Your task to perform on an android device: Search for a coffee table on IKEA Image 0: 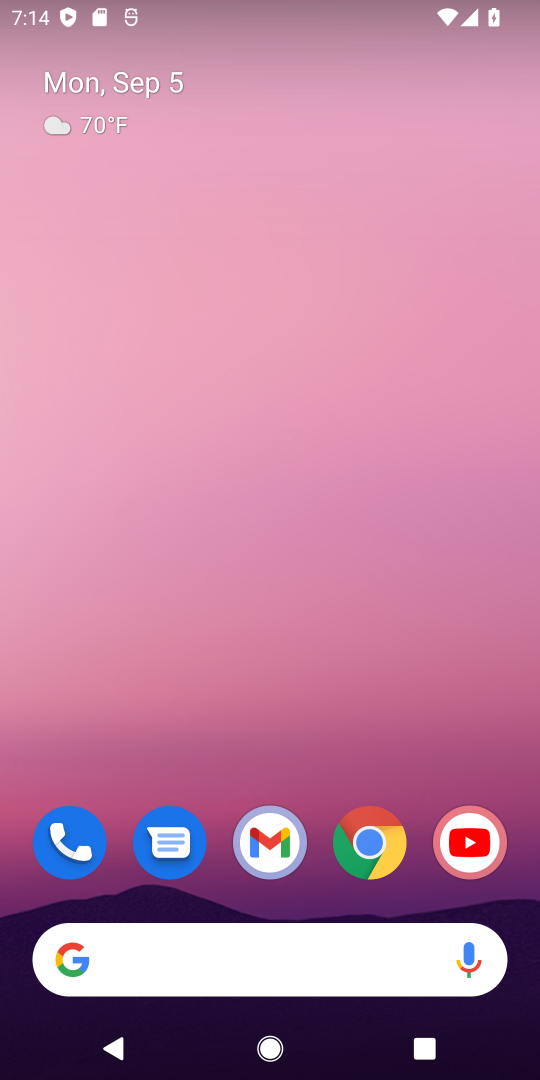
Step 0: click (374, 843)
Your task to perform on an android device: Search for a coffee table on IKEA Image 1: 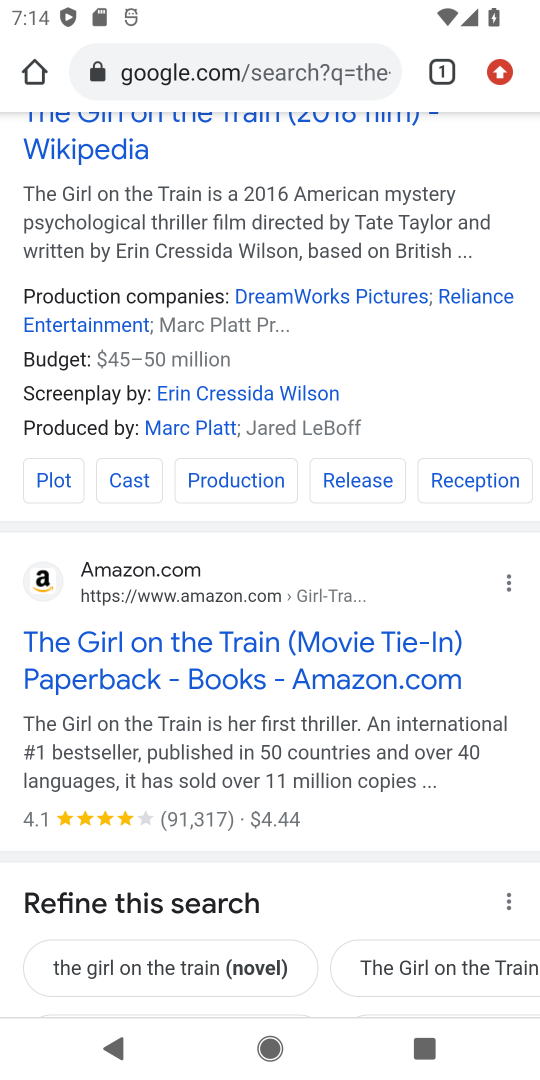
Step 1: click (325, 81)
Your task to perform on an android device: Search for a coffee table on IKEA Image 2: 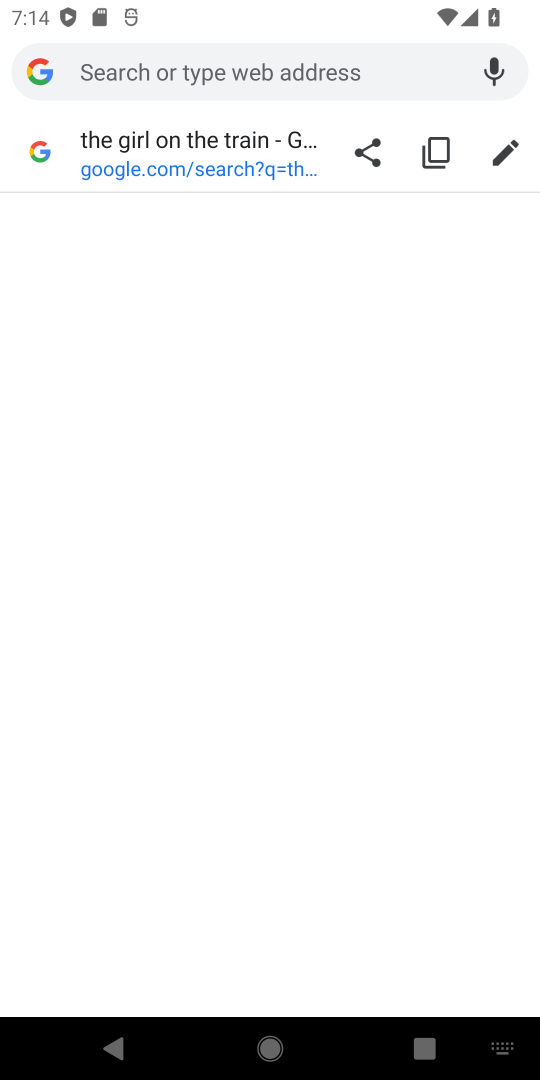
Step 2: type "IKEA"
Your task to perform on an android device: Search for a coffee table on IKEA Image 3: 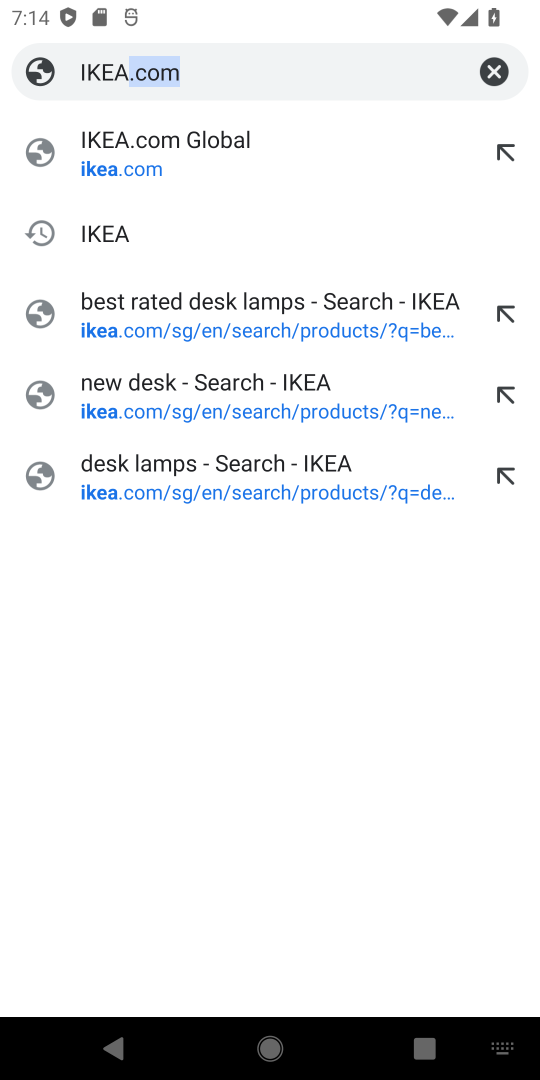
Step 3: click (128, 231)
Your task to perform on an android device: Search for a coffee table on IKEA Image 4: 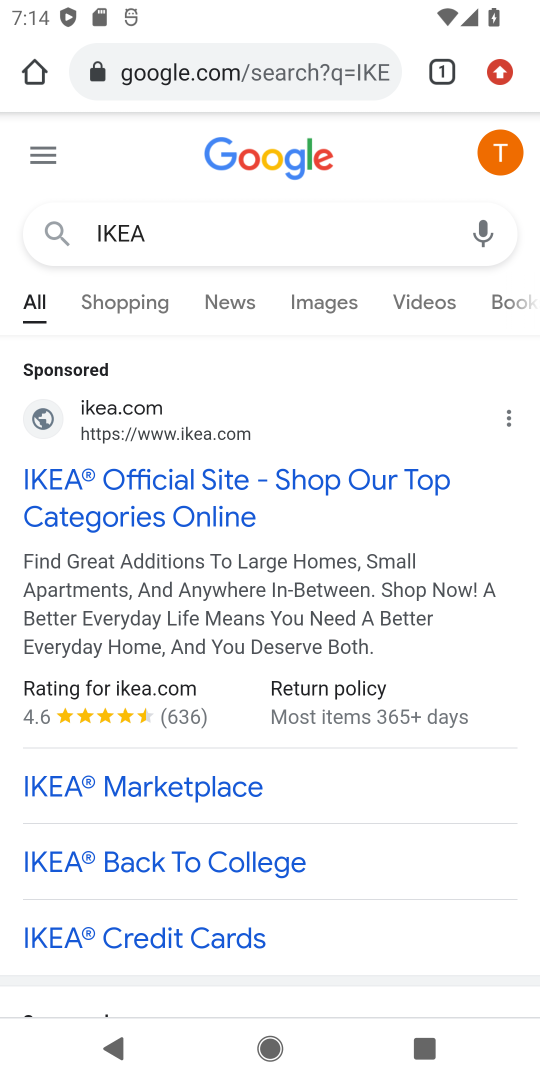
Step 4: click (275, 526)
Your task to perform on an android device: Search for a coffee table on IKEA Image 5: 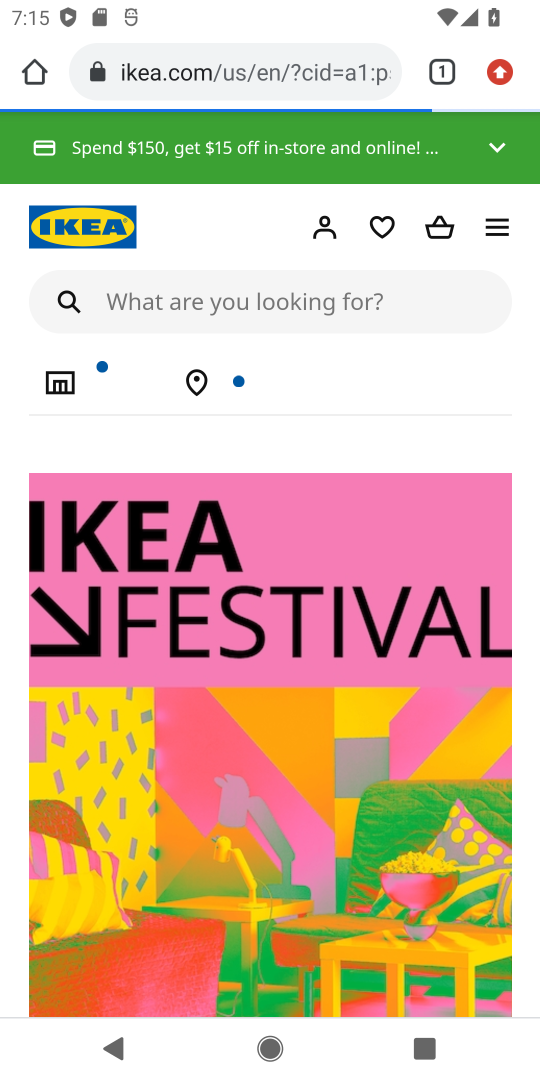
Step 5: click (288, 304)
Your task to perform on an android device: Search for a coffee table on IKEA Image 6: 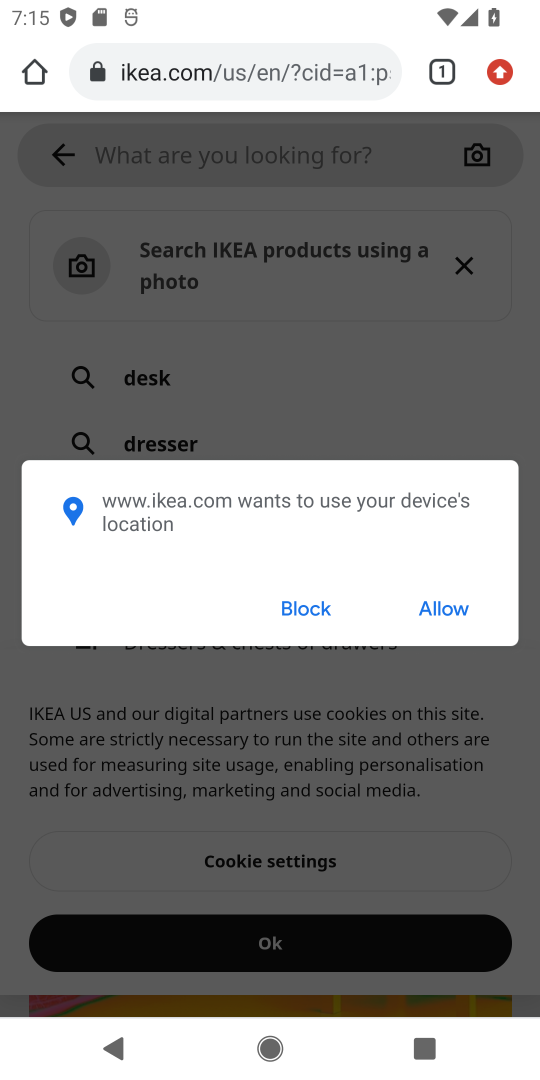
Step 6: click (461, 610)
Your task to perform on an android device: Search for a coffee table on IKEA Image 7: 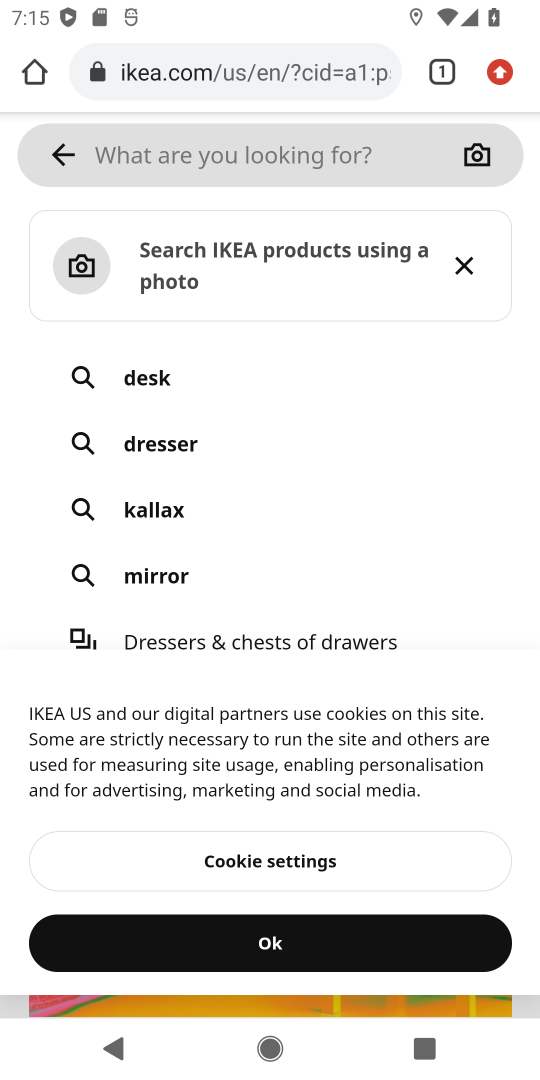
Step 7: click (325, 156)
Your task to perform on an android device: Search for a coffee table on IKEA Image 8: 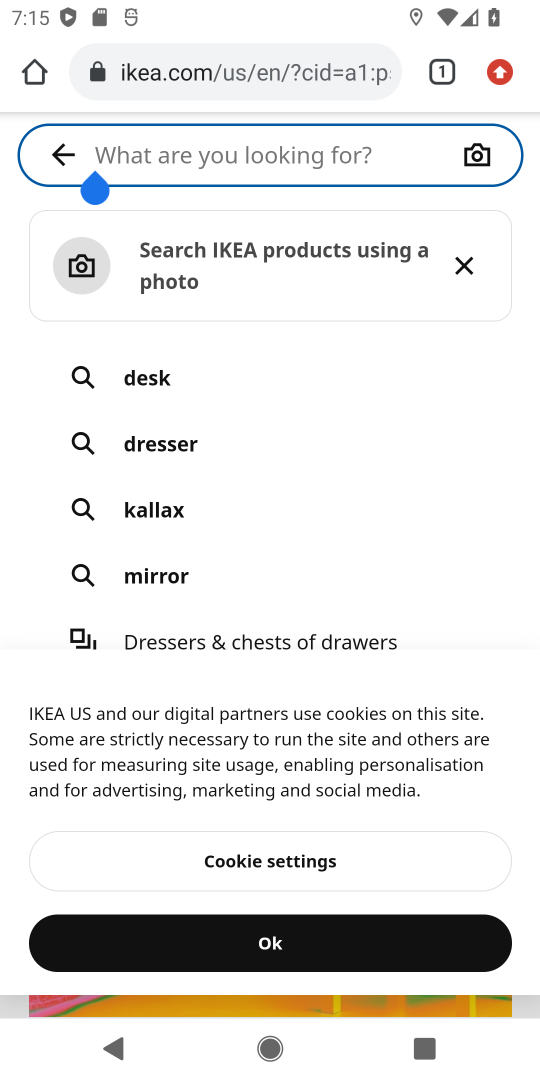
Step 8: type "coffee table"
Your task to perform on an android device: Search for a coffee table on IKEA Image 9: 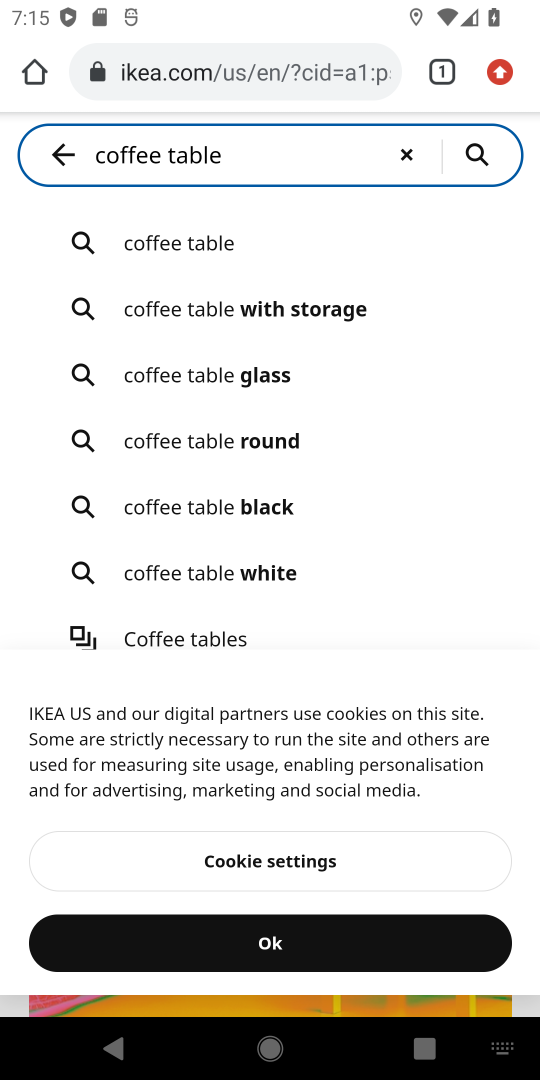
Step 9: click (215, 242)
Your task to perform on an android device: Search for a coffee table on IKEA Image 10: 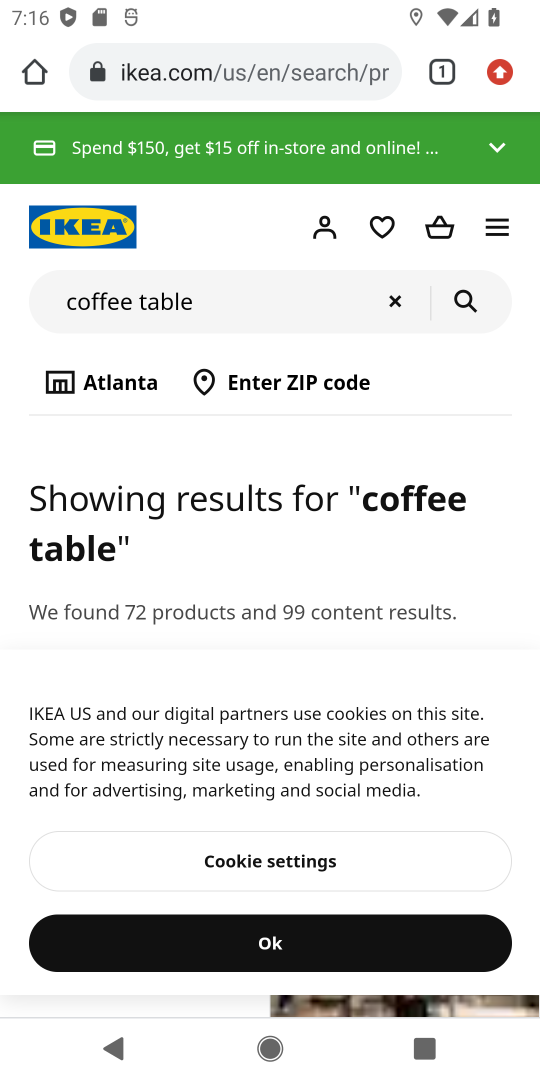
Step 10: click (277, 939)
Your task to perform on an android device: Search for a coffee table on IKEA Image 11: 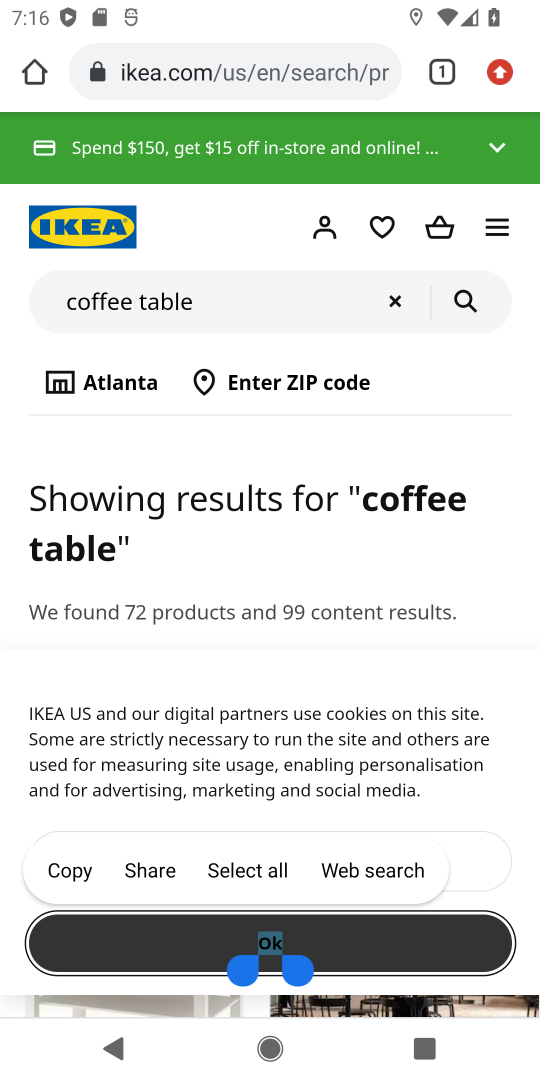
Step 11: click (355, 934)
Your task to perform on an android device: Search for a coffee table on IKEA Image 12: 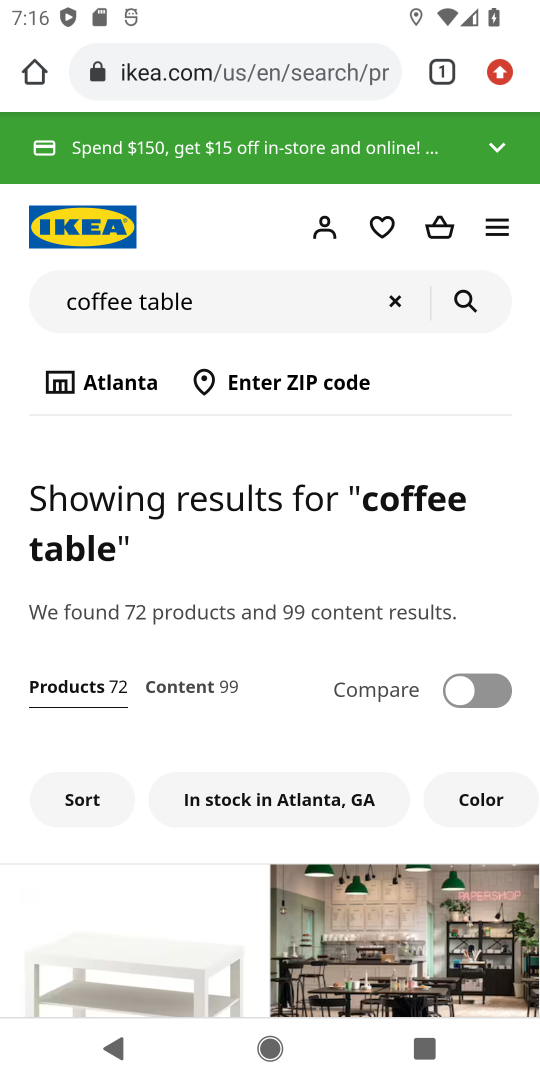
Step 12: drag from (321, 845) to (414, 571)
Your task to perform on an android device: Search for a coffee table on IKEA Image 13: 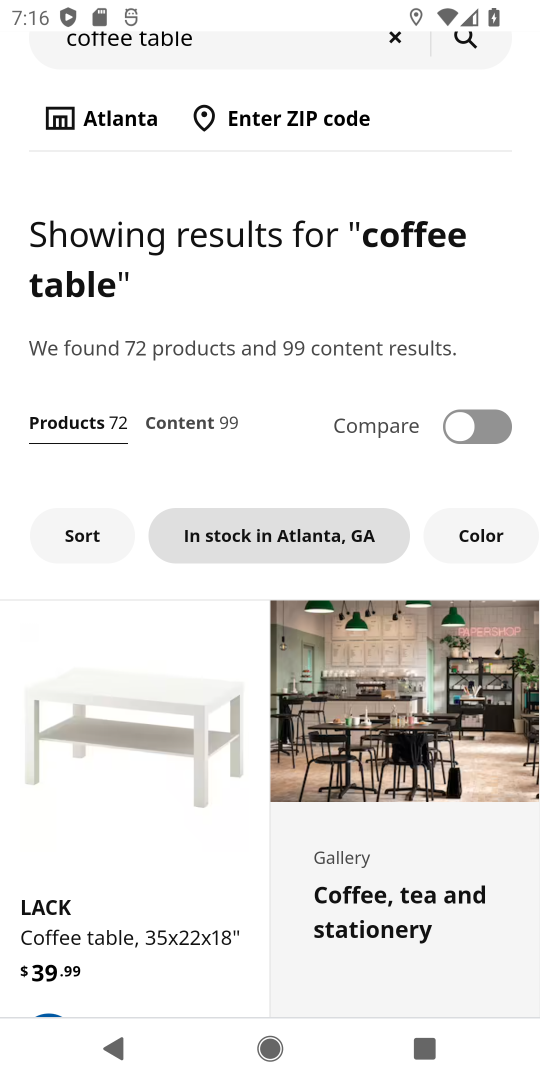
Step 13: drag from (360, 838) to (392, 615)
Your task to perform on an android device: Search for a coffee table on IKEA Image 14: 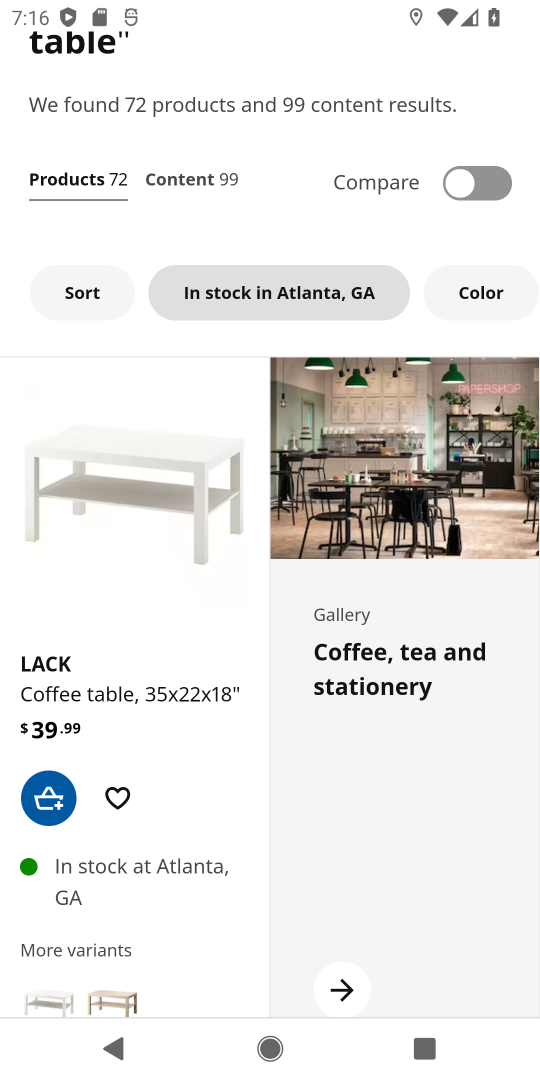
Step 14: drag from (428, 955) to (453, 482)
Your task to perform on an android device: Search for a coffee table on IKEA Image 15: 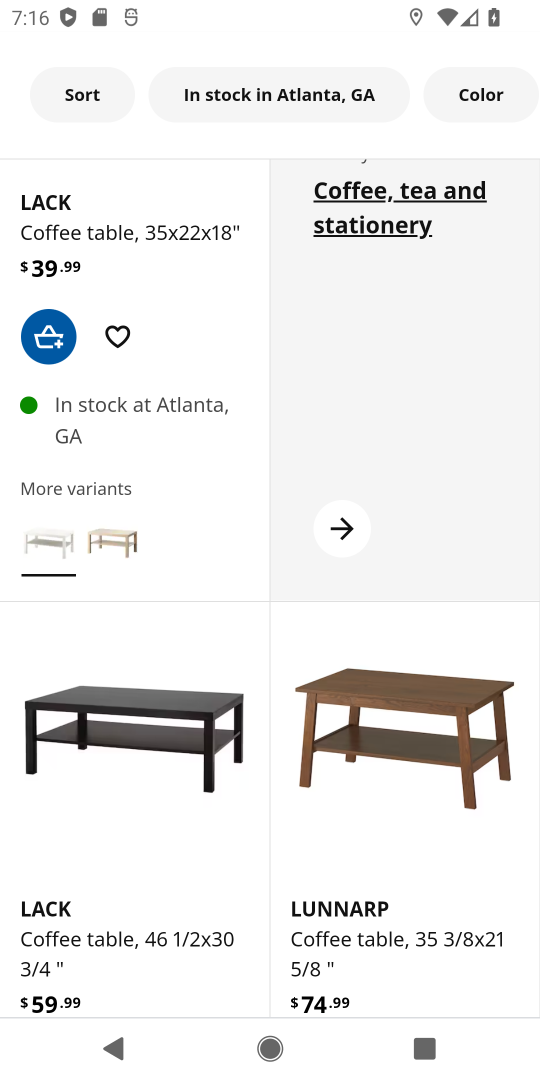
Step 15: drag from (408, 753) to (438, 557)
Your task to perform on an android device: Search for a coffee table on IKEA Image 16: 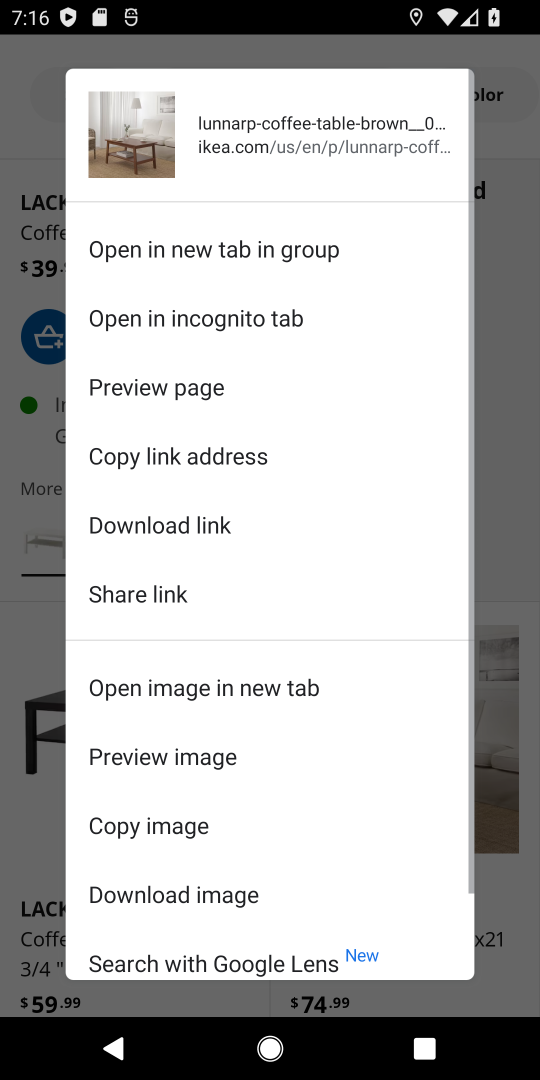
Step 16: click (510, 351)
Your task to perform on an android device: Search for a coffee table on IKEA Image 17: 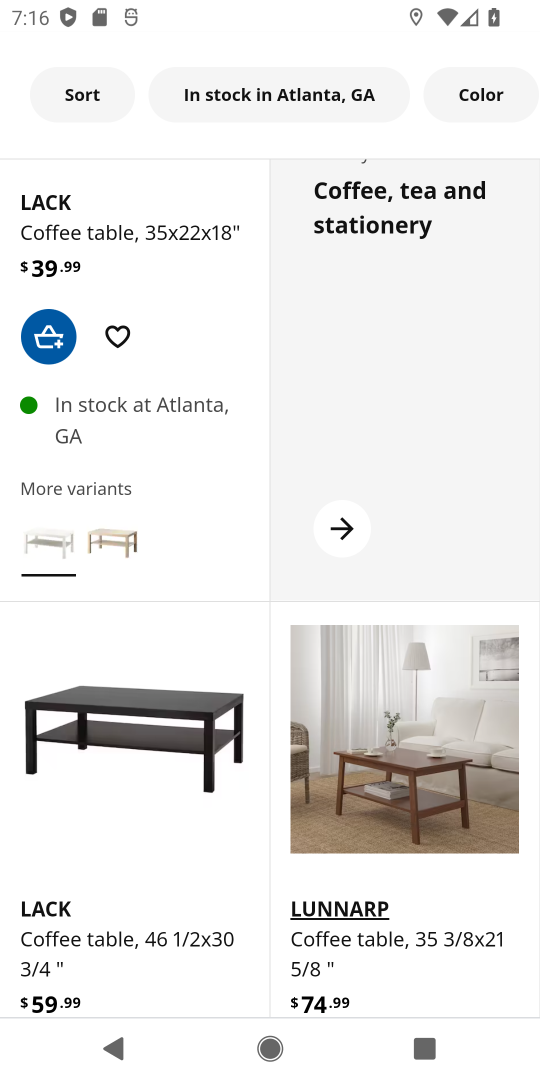
Step 17: task complete